Your task to perform on an android device: toggle wifi Image 0: 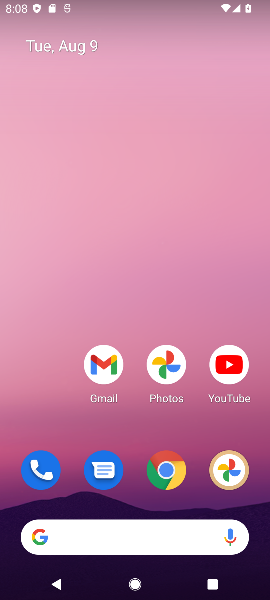
Step 0: drag from (119, 534) to (174, 122)
Your task to perform on an android device: toggle wifi Image 1: 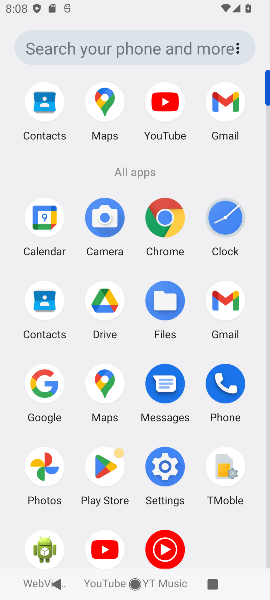
Step 1: click (165, 468)
Your task to perform on an android device: toggle wifi Image 2: 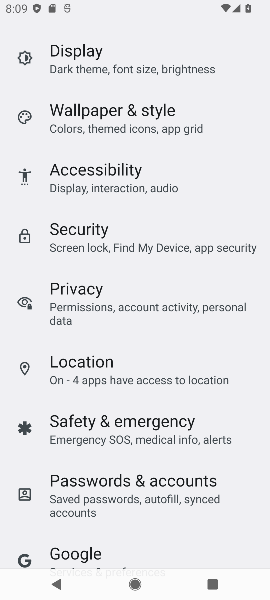
Step 2: drag from (133, 101) to (119, 281)
Your task to perform on an android device: toggle wifi Image 3: 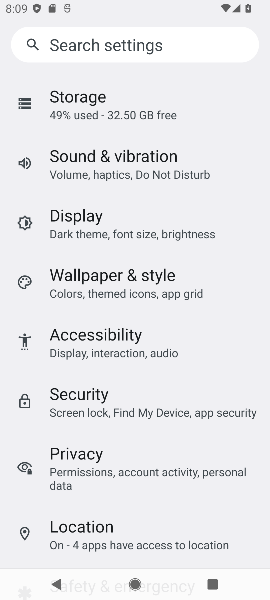
Step 3: drag from (138, 140) to (109, 294)
Your task to perform on an android device: toggle wifi Image 4: 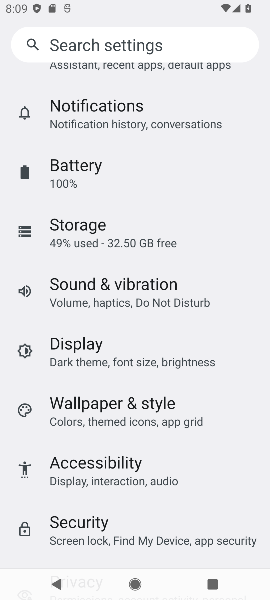
Step 4: drag from (179, 96) to (150, 281)
Your task to perform on an android device: toggle wifi Image 5: 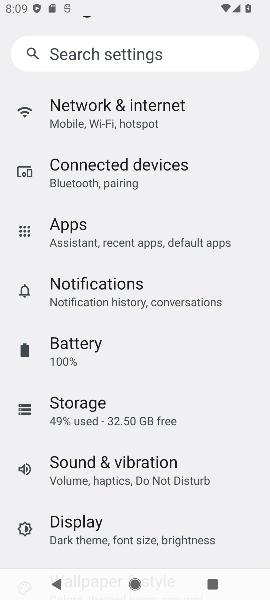
Step 5: click (130, 114)
Your task to perform on an android device: toggle wifi Image 6: 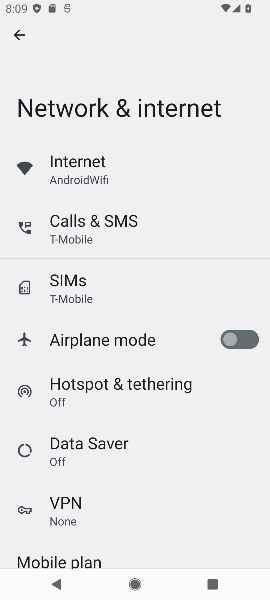
Step 6: click (90, 165)
Your task to perform on an android device: toggle wifi Image 7: 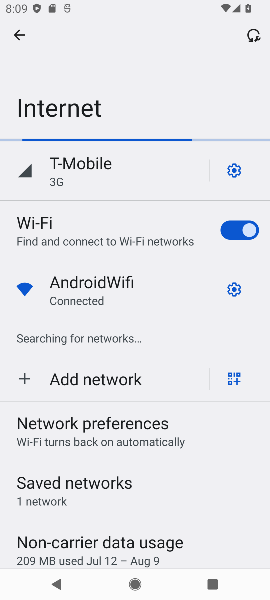
Step 7: click (241, 235)
Your task to perform on an android device: toggle wifi Image 8: 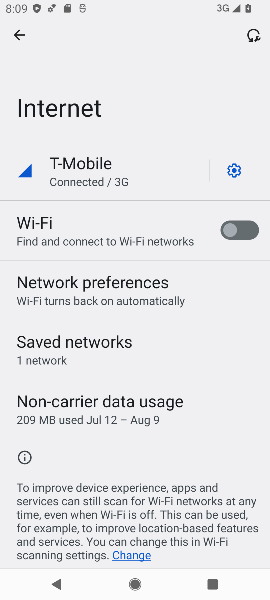
Step 8: task complete